Your task to perform on an android device: change the clock display to digital Image 0: 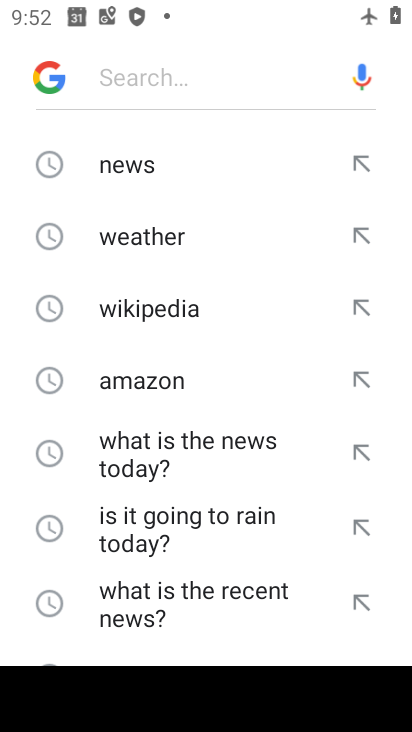
Step 0: press home button
Your task to perform on an android device: change the clock display to digital Image 1: 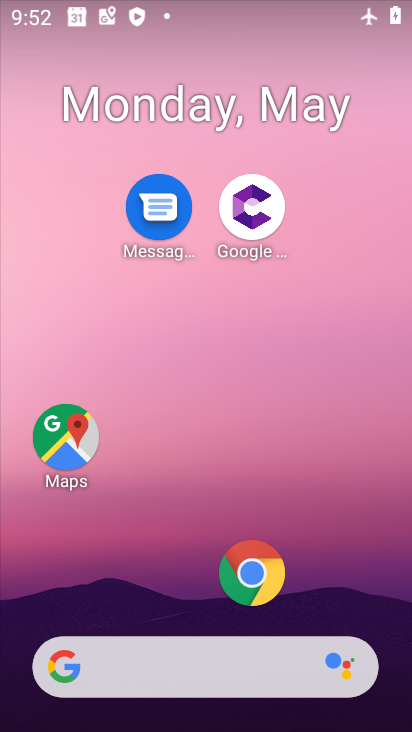
Step 1: drag from (180, 638) to (132, 149)
Your task to perform on an android device: change the clock display to digital Image 2: 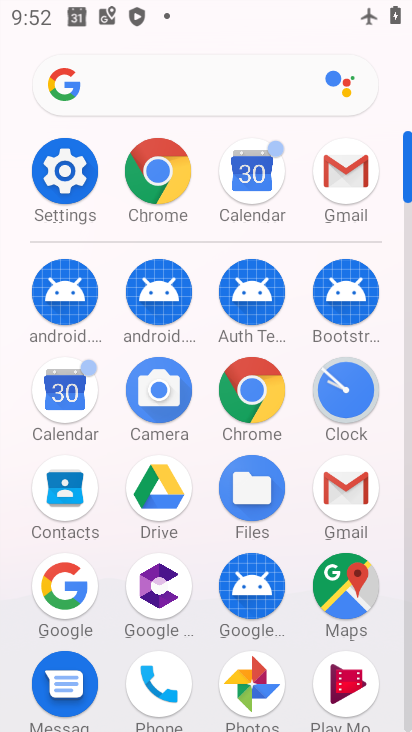
Step 2: click (360, 401)
Your task to perform on an android device: change the clock display to digital Image 3: 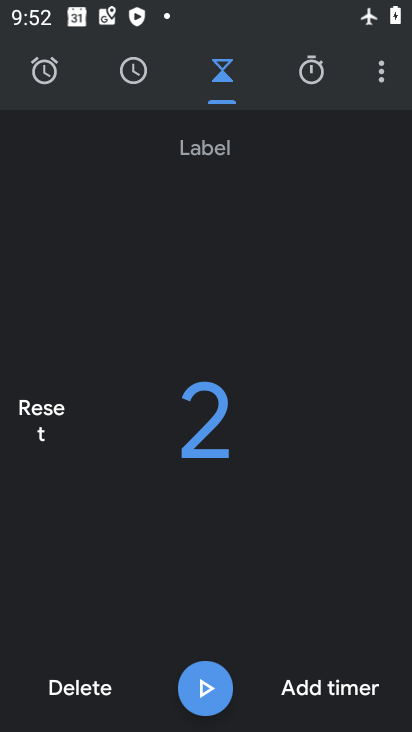
Step 3: click (386, 90)
Your task to perform on an android device: change the clock display to digital Image 4: 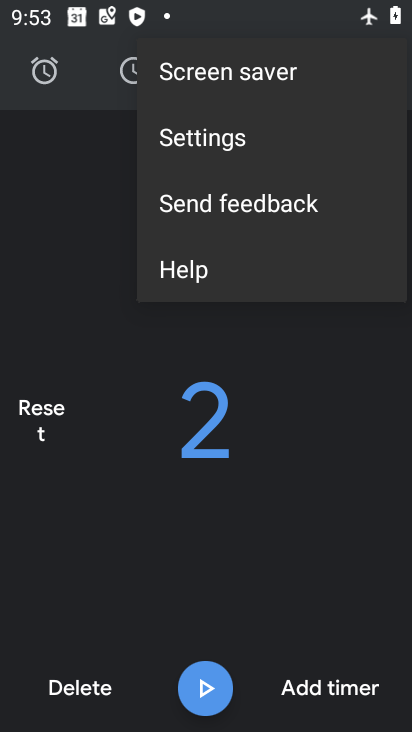
Step 4: click (214, 139)
Your task to perform on an android device: change the clock display to digital Image 5: 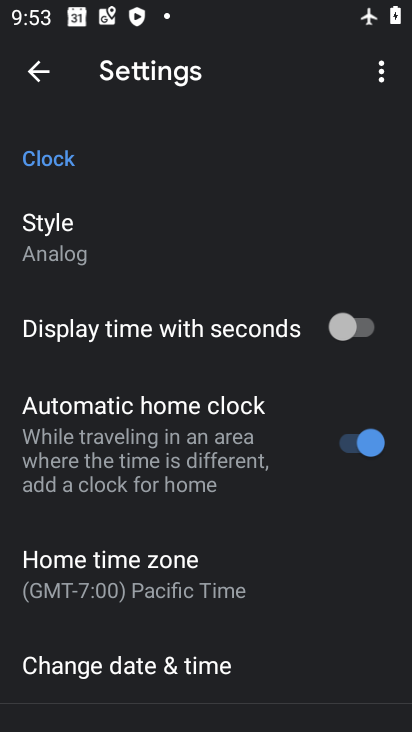
Step 5: click (105, 247)
Your task to perform on an android device: change the clock display to digital Image 6: 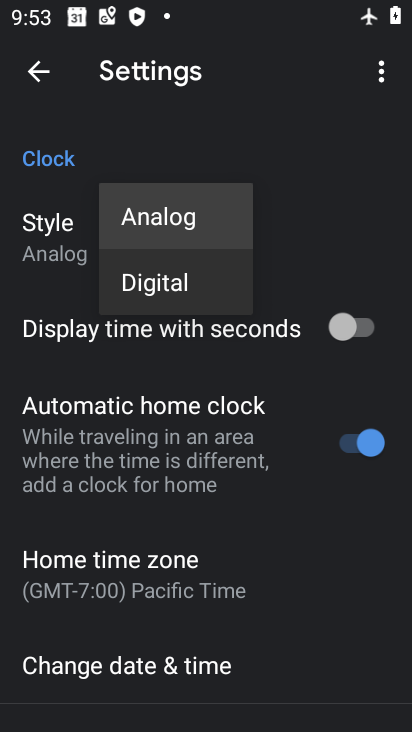
Step 6: click (185, 264)
Your task to perform on an android device: change the clock display to digital Image 7: 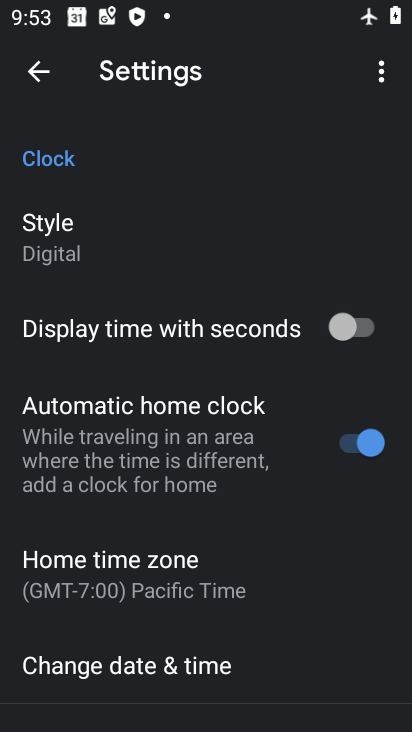
Step 7: task complete